Your task to perform on an android device: add a label to a message in the gmail app Image 0: 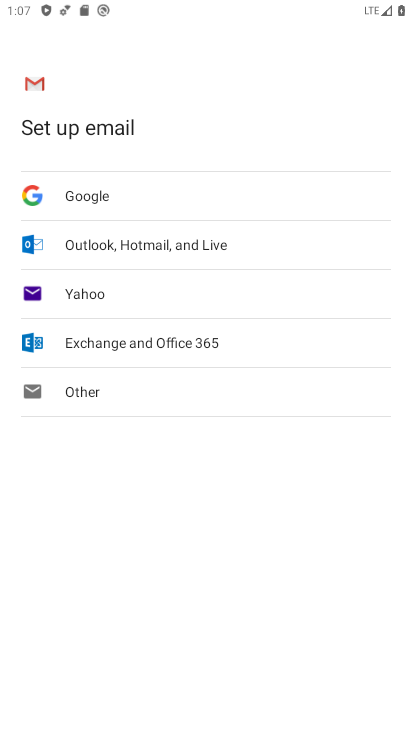
Step 0: drag from (236, 655) to (174, 210)
Your task to perform on an android device: add a label to a message in the gmail app Image 1: 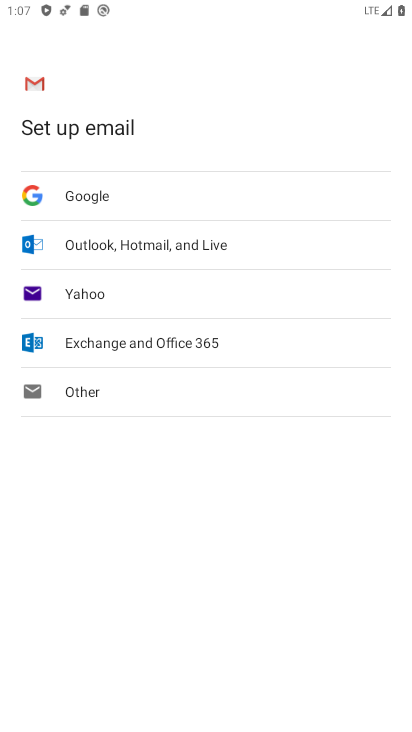
Step 1: press home button
Your task to perform on an android device: add a label to a message in the gmail app Image 2: 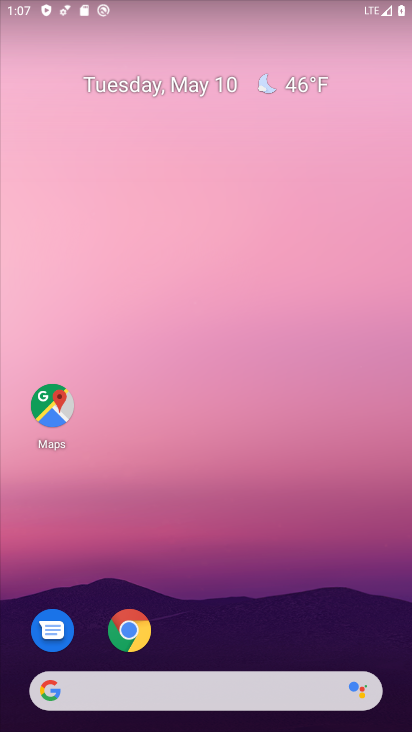
Step 2: drag from (200, 668) to (119, 15)
Your task to perform on an android device: add a label to a message in the gmail app Image 3: 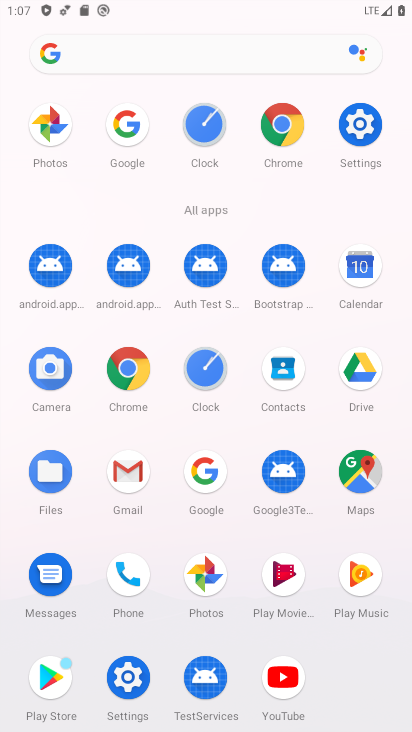
Step 3: click (129, 475)
Your task to perform on an android device: add a label to a message in the gmail app Image 4: 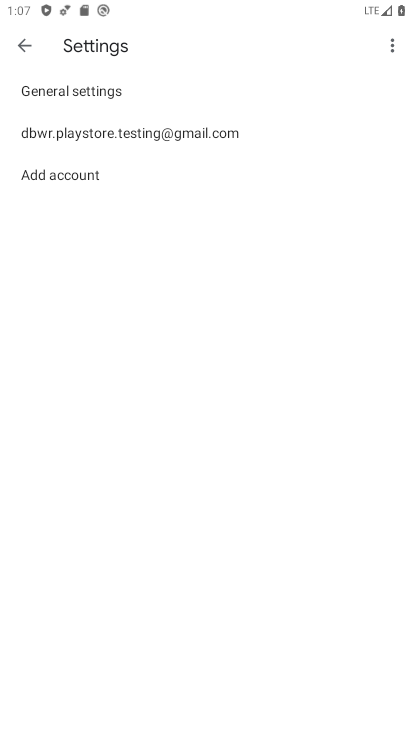
Step 4: click (19, 44)
Your task to perform on an android device: add a label to a message in the gmail app Image 5: 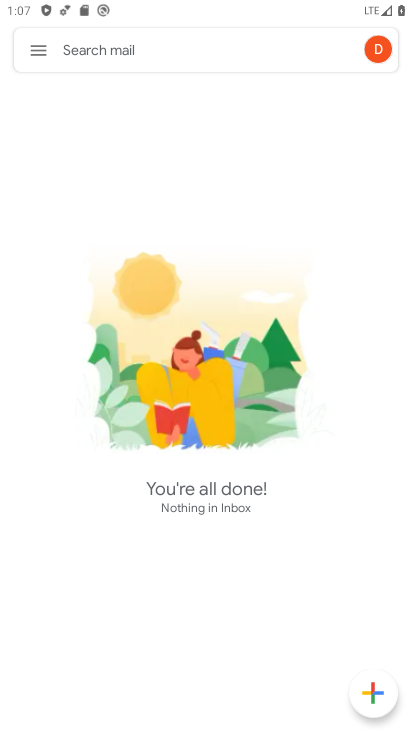
Step 5: task complete